Your task to perform on an android device: Is it going to rain this weekend? Image 0: 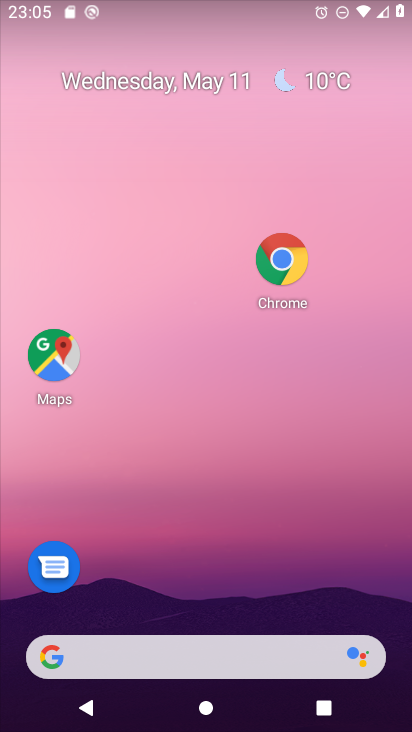
Step 0: click (309, 83)
Your task to perform on an android device: Is it going to rain this weekend? Image 1: 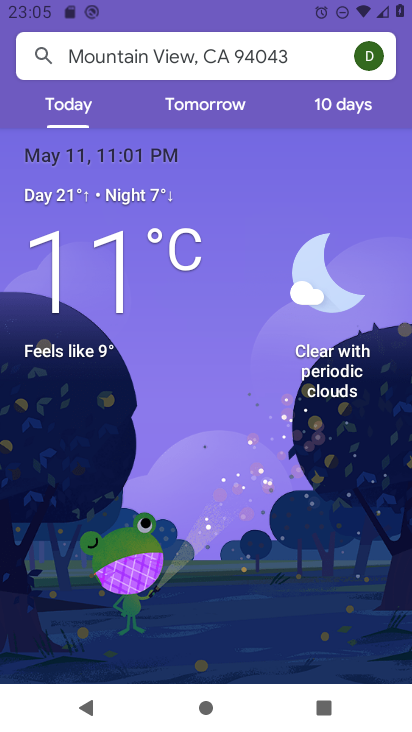
Step 1: click (337, 103)
Your task to perform on an android device: Is it going to rain this weekend? Image 2: 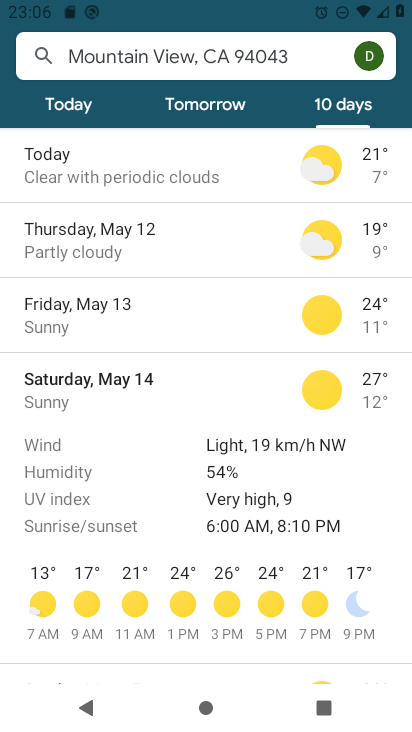
Step 2: task complete